Your task to perform on an android device: turn on the 24-hour format for clock Image 0: 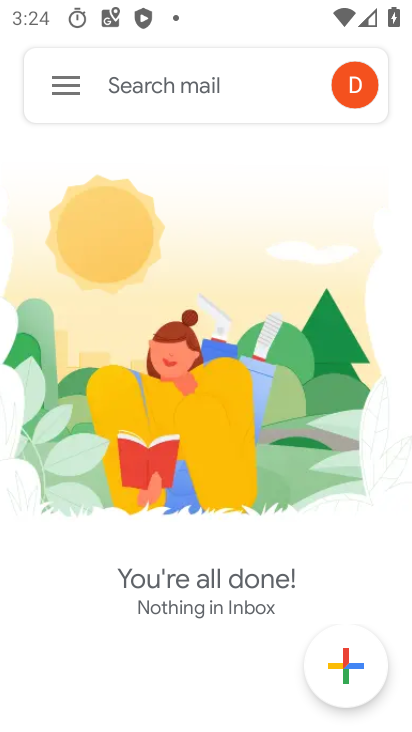
Step 0: press home button
Your task to perform on an android device: turn on the 24-hour format for clock Image 1: 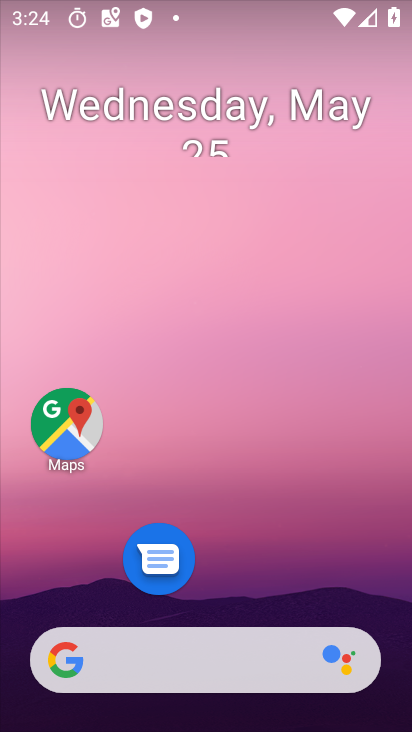
Step 1: drag from (218, 595) to (261, 85)
Your task to perform on an android device: turn on the 24-hour format for clock Image 2: 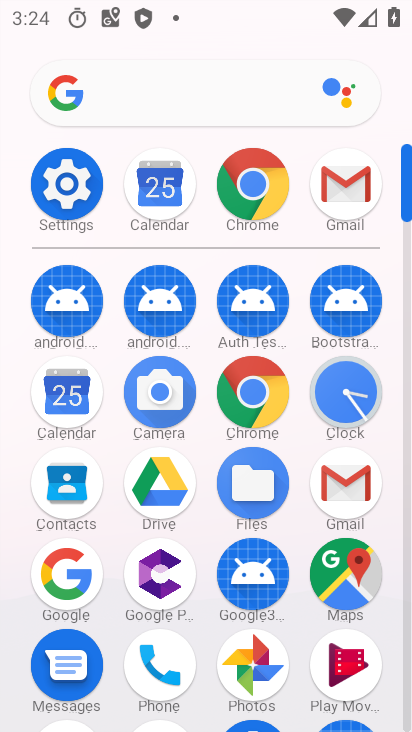
Step 2: click (341, 387)
Your task to perform on an android device: turn on the 24-hour format for clock Image 3: 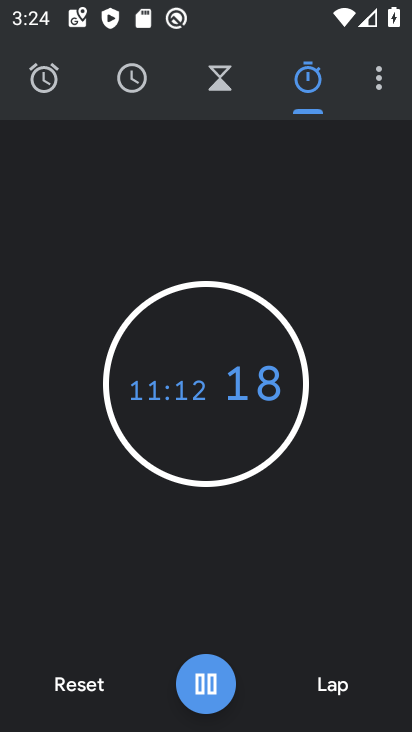
Step 3: click (81, 681)
Your task to perform on an android device: turn on the 24-hour format for clock Image 4: 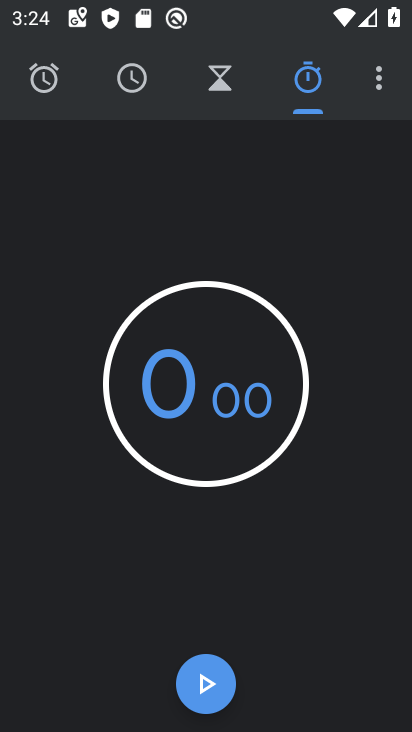
Step 4: click (377, 88)
Your task to perform on an android device: turn on the 24-hour format for clock Image 5: 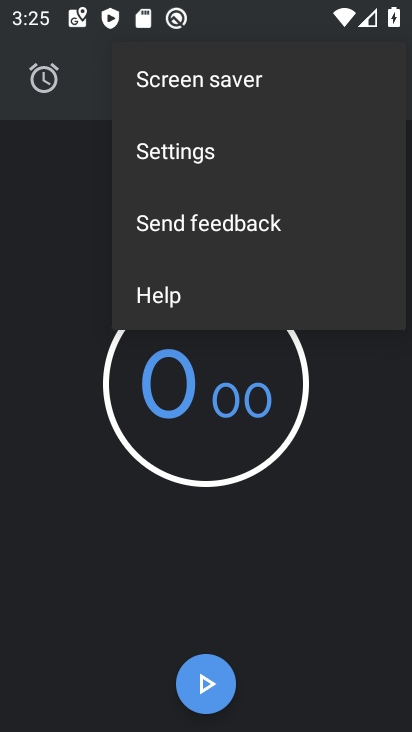
Step 5: click (226, 151)
Your task to perform on an android device: turn on the 24-hour format for clock Image 6: 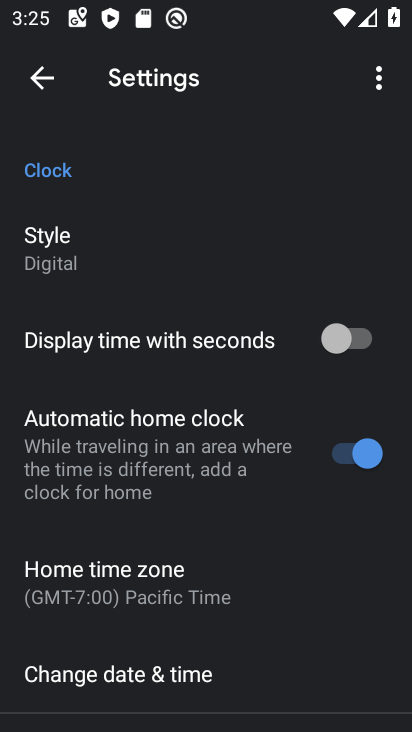
Step 6: click (226, 675)
Your task to perform on an android device: turn on the 24-hour format for clock Image 7: 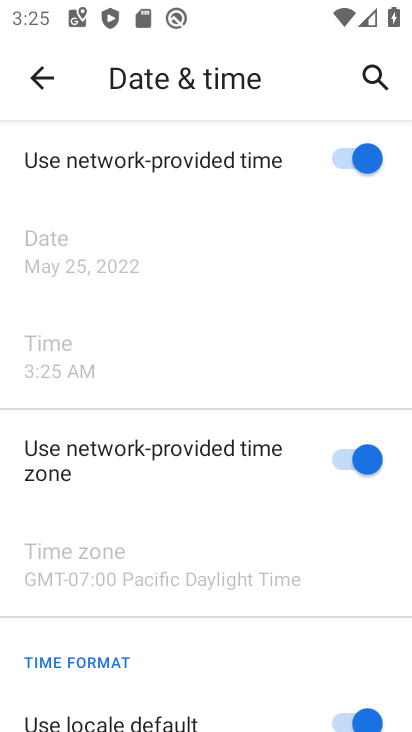
Step 7: drag from (226, 682) to (260, 223)
Your task to perform on an android device: turn on the 24-hour format for clock Image 8: 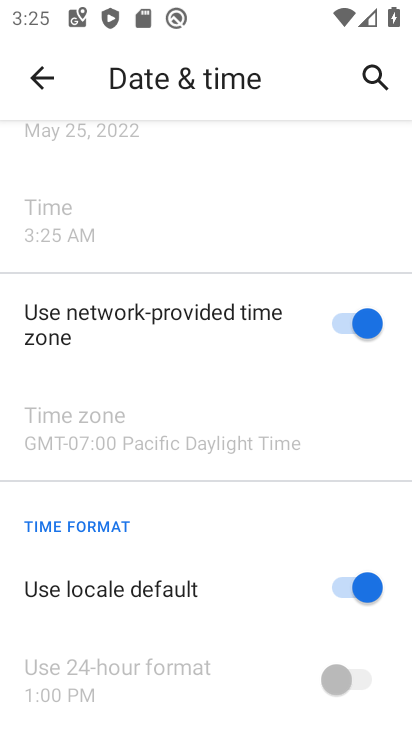
Step 8: click (347, 580)
Your task to perform on an android device: turn on the 24-hour format for clock Image 9: 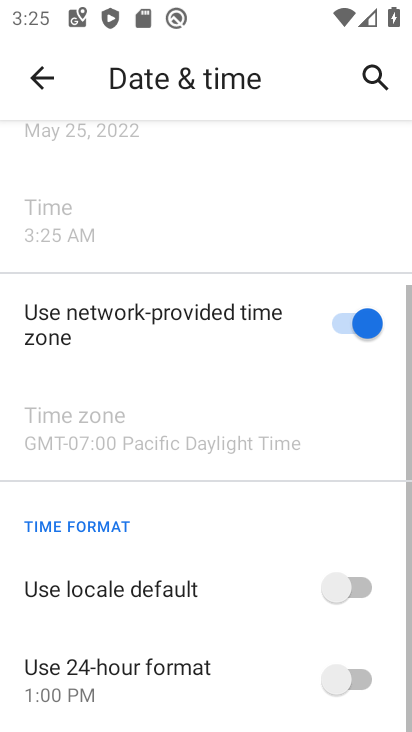
Step 9: click (360, 678)
Your task to perform on an android device: turn on the 24-hour format for clock Image 10: 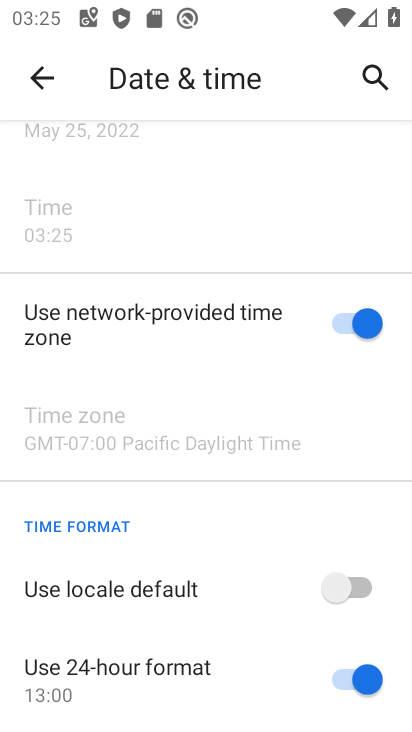
Step 10: task complete